Your task to perform on an android device: Open the phone app and click the voicemail tab. Image 0: 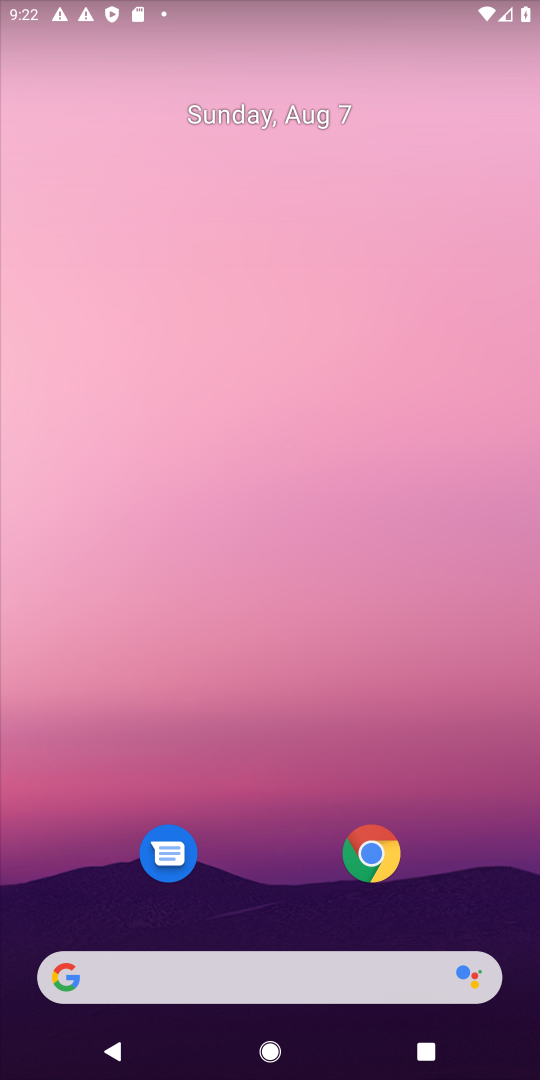
Step 0: press home button
Your task to perform on an android device: Open the phone app and click the voicemail tab. Image 1: 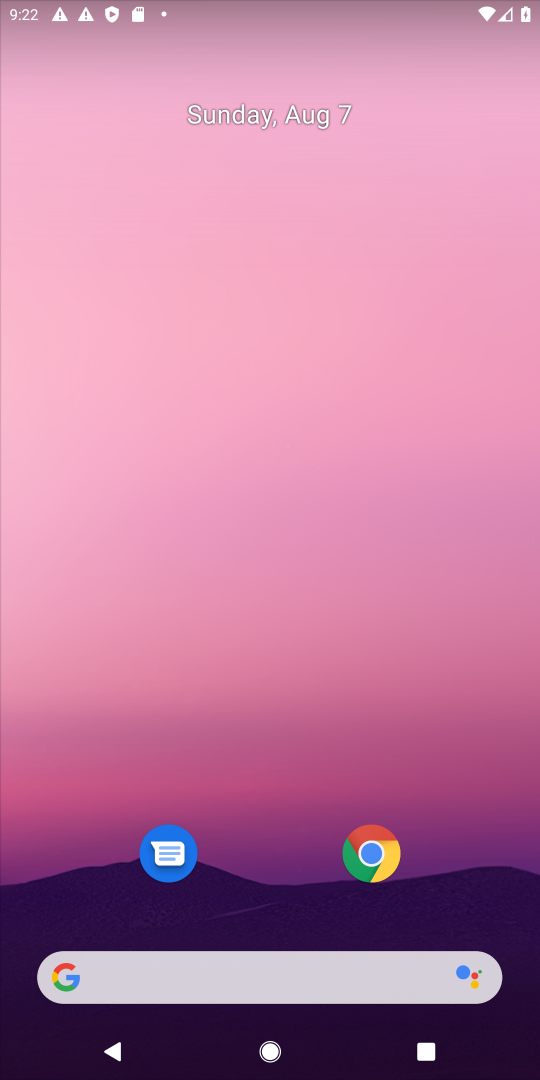
Step 1: drag from (450, 898) to (480, 353)
Your task to perform on an android device: Open the phone app and click the voicemail tab. Image 2: 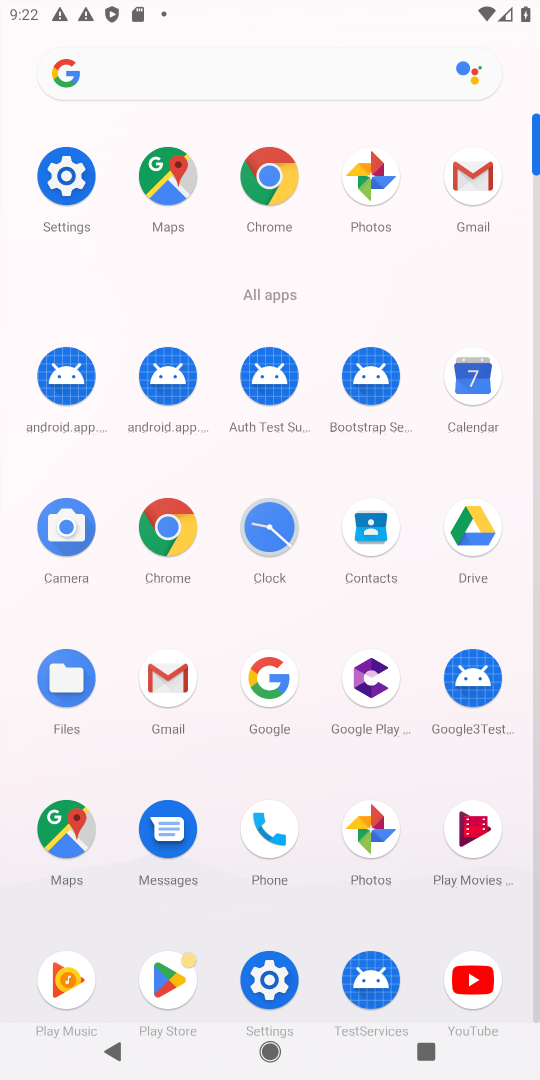
Step 2: click (266, 842)
Your task to perform on an android device: Open the phone app and click the voicemail tab. Image 3: 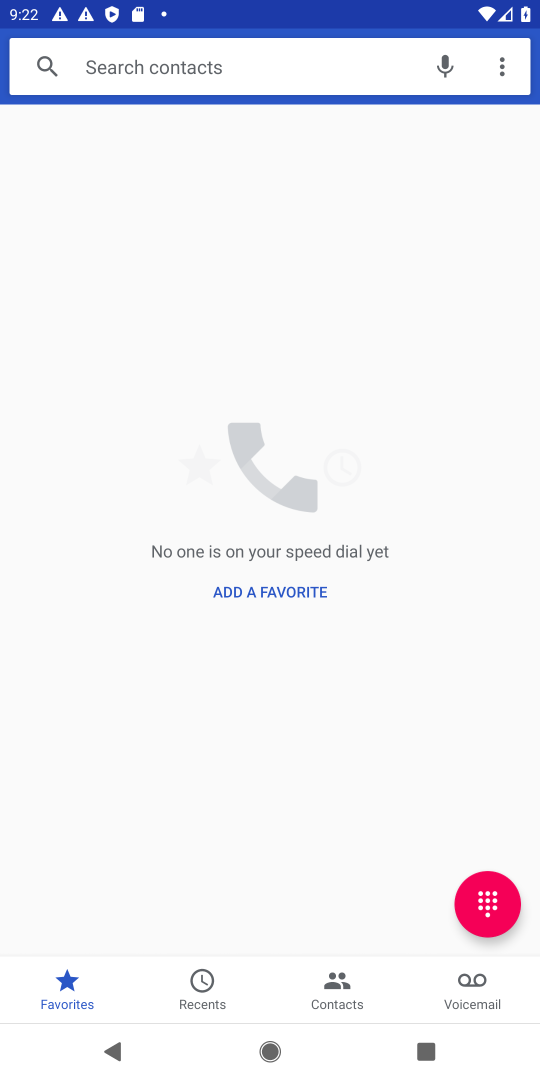
Step 3: click (484, 997)
Your task to perform on an android device: Open the phone app and click the voicemail tab. Image 4: 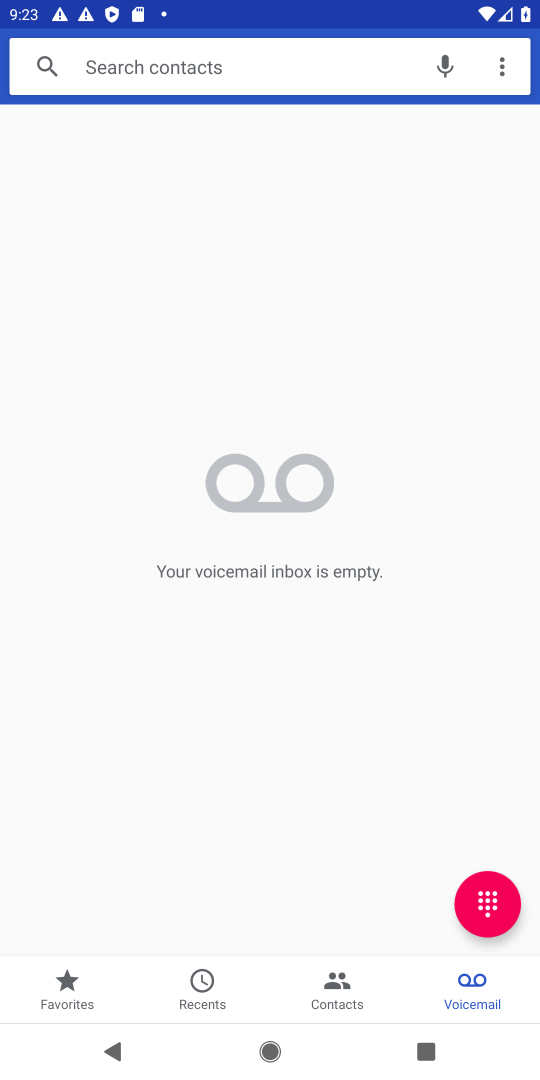
Step 4: task complete